Your task to perform on an android device: turn off location history Image 0: 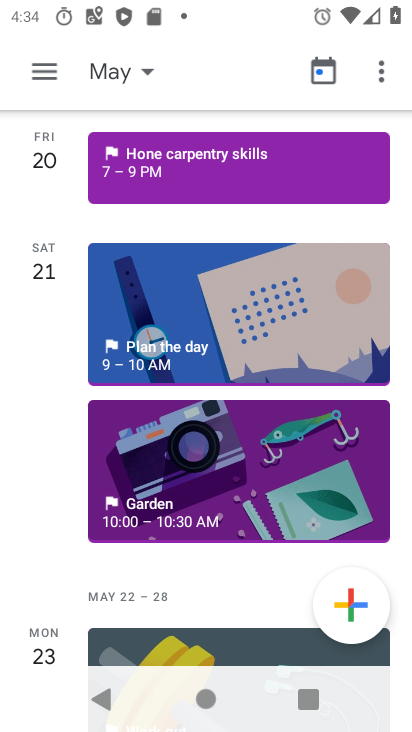
Step 0: press home button
Your task to perform on an android device: turn off location history Image 1: 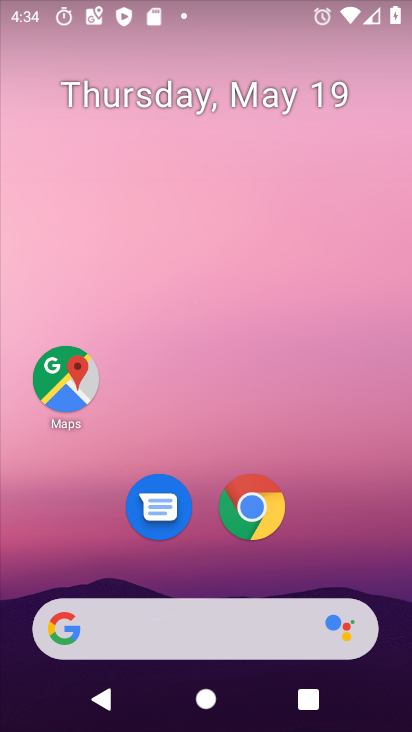
Step 1: drag from (382, 600) to (332, 324)
Your task to perform on an android device: turn off location history Image 2: 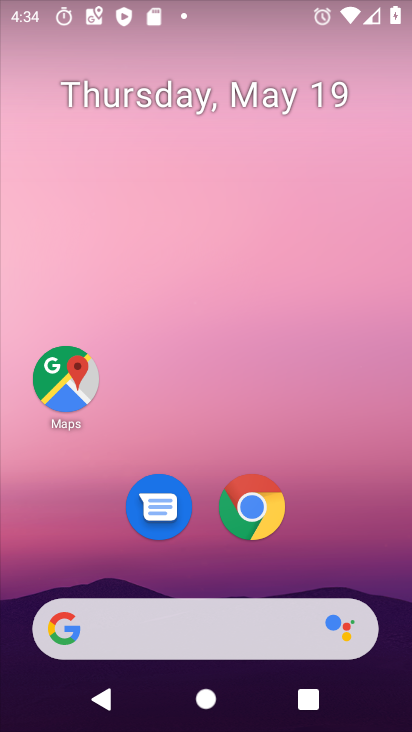
Step 2: drag from (395, 677) to (352, 413)
Your task to perform on an android device: turn off location history Image 3: 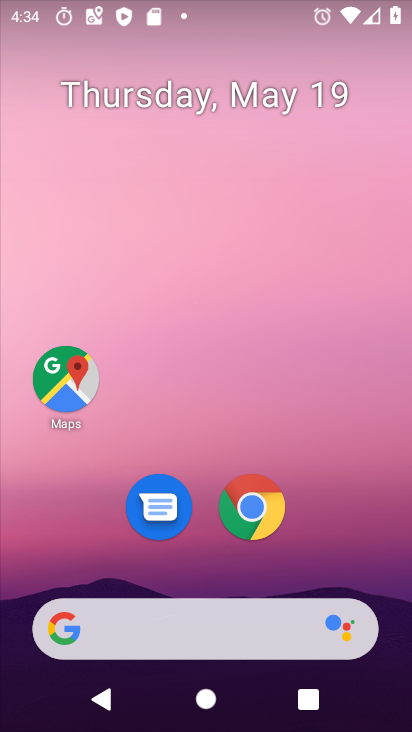
Step 3: drag from (389, 709) to (331, 295)
Your task to perform on an android device: turn off location history Image 4: 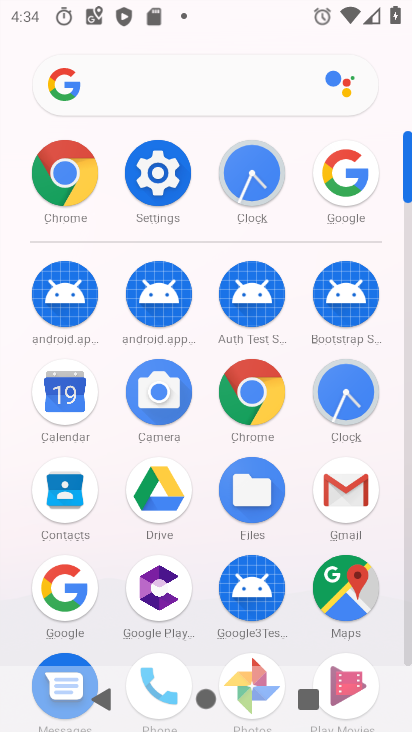
Step 4: click (134, 171)
Your task to perform on an android device: turn off location history Image 5: 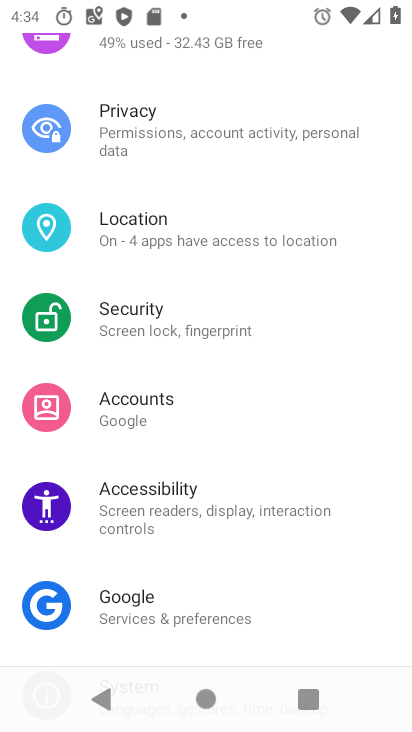
Step 5: click (162, 228)
Your task to perform on an android device: turn off location history Image 6: 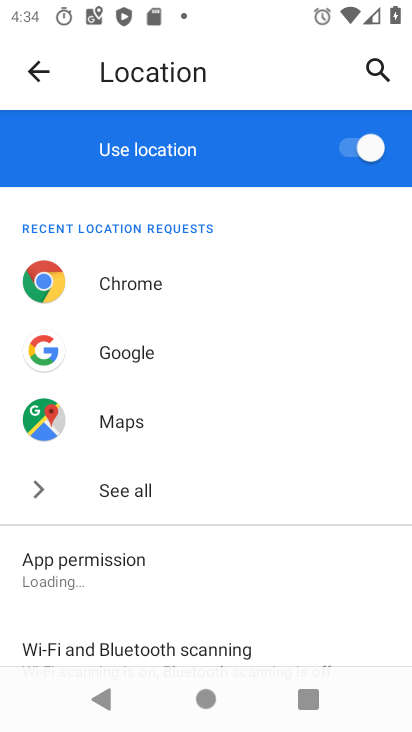
Step 6: drag from (282, 602) to (222, 343)
Your task to perform on an android device: turn off location history Image 7: 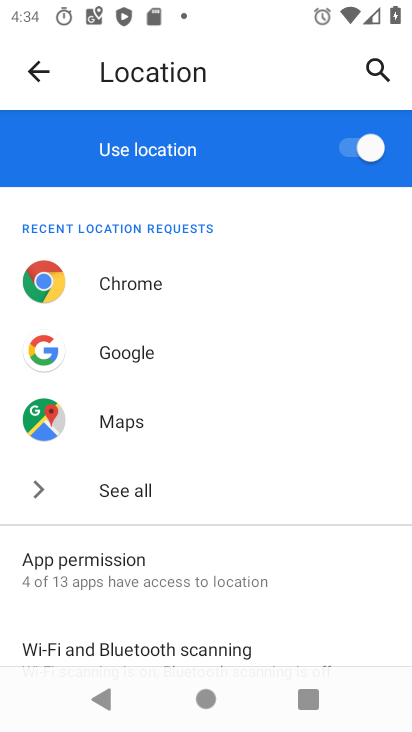
Step 7: drag from (305, 603) to (304, 317)
Your task to perform on an android device: turn off location history Image 8: 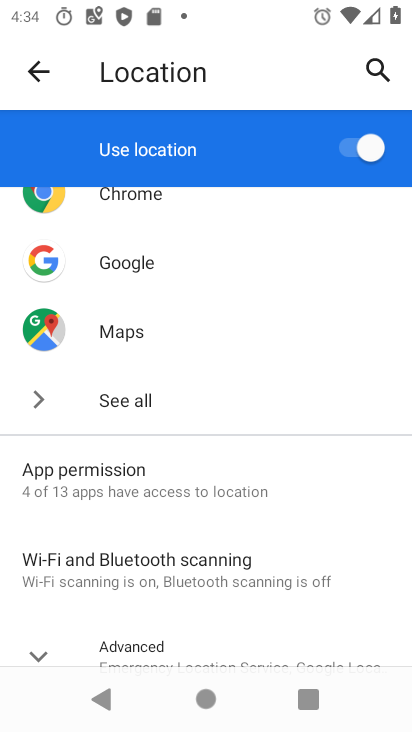
Step 8: drag from (302, 583) to (281, 351)
Your task to perform on an android device: turn off location history Image 9: 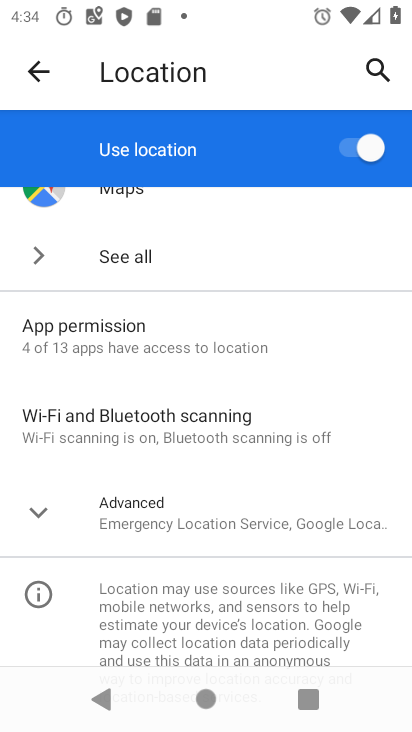
Step 9: click (30, 517)
Your task to perform on an android device: turn off location history Image 10: 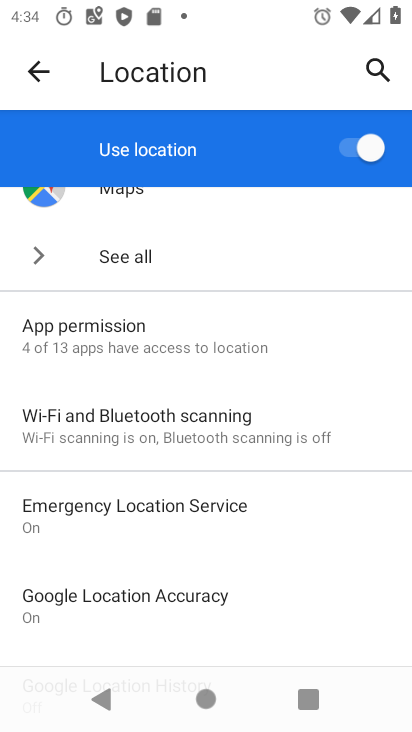
Step 10: drag from (331, 579) to (327, 365)
Your task to perform on an android device: turn off location history Image 11: 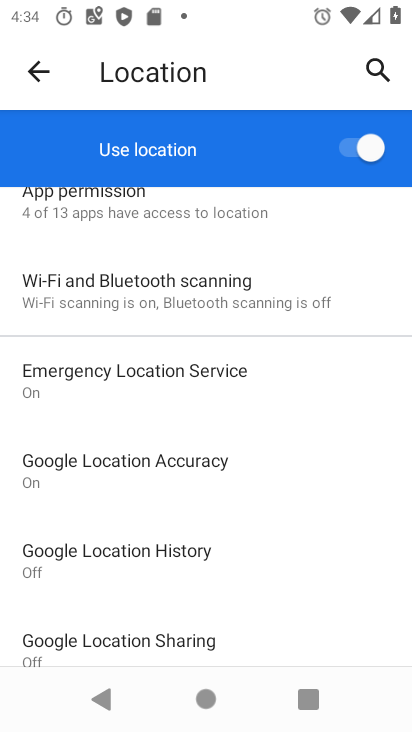
Step 11: drag from (296, 623) to (270, 416)
Your task to perform on an android device: turn off location history Image 12: 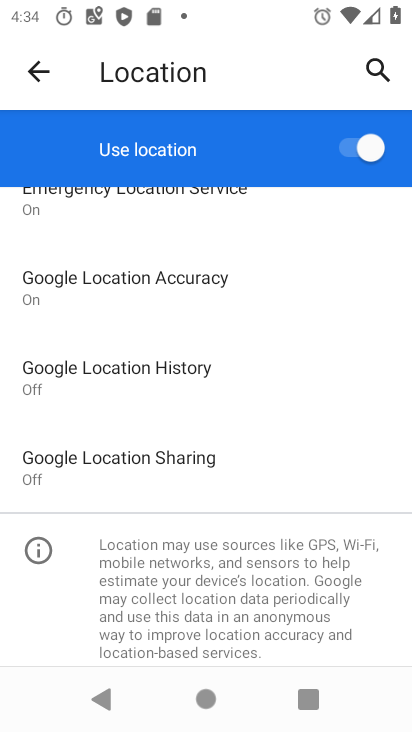
Step 12: click (74, 374)
Your task to perform on an android device: turn off location history Image 13: 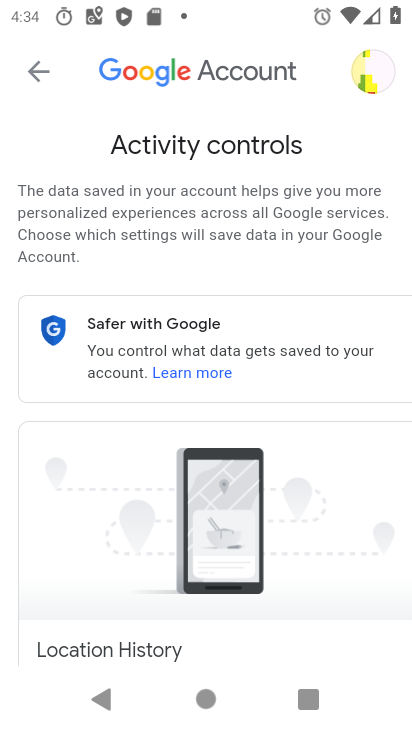
Step 13: task complete